Your task to perform on an android device: Open the web browser Image 0: 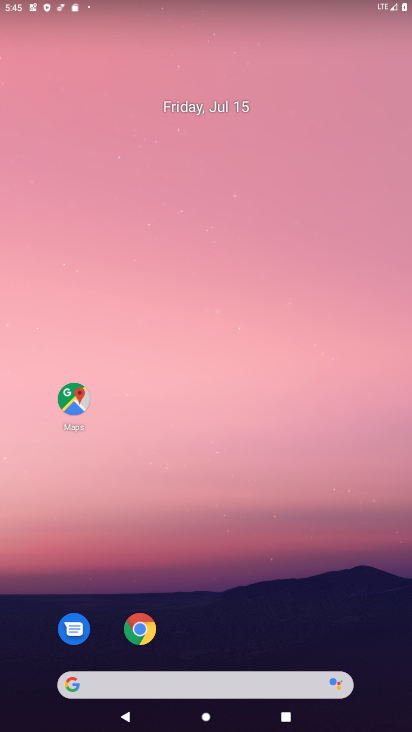
Step 0: click (73, 685)
Your task to perform on an android device: Open the web browser Image 1: 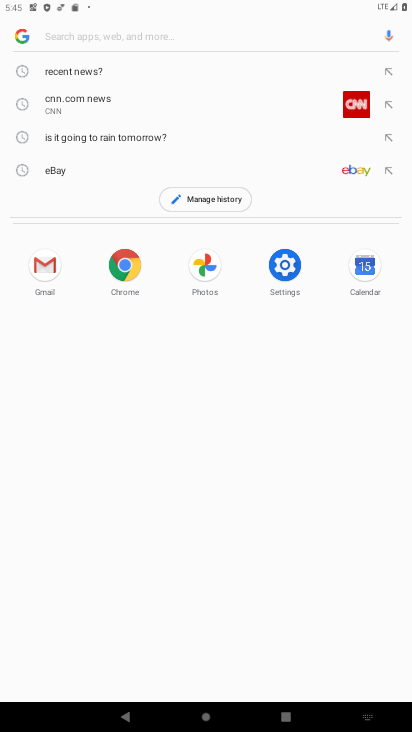
Step 1: task complete